Your task to perform on an android device: toggle location history Image 0: 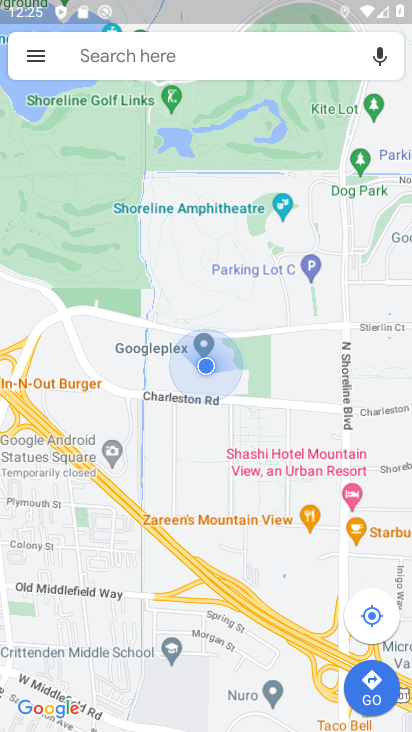
Step 0: press home button
Your task to perform on an android device: toggle location history Image 1: 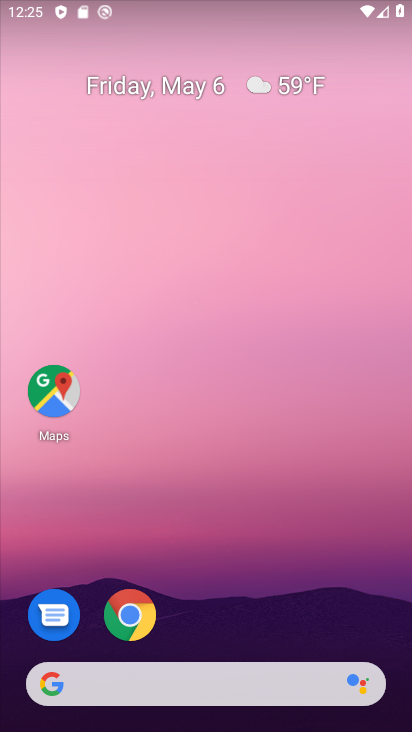
Step 1: drag from (248, 544) to (226, 12)
Your task to perform on an android device: toggle location history Image 2: 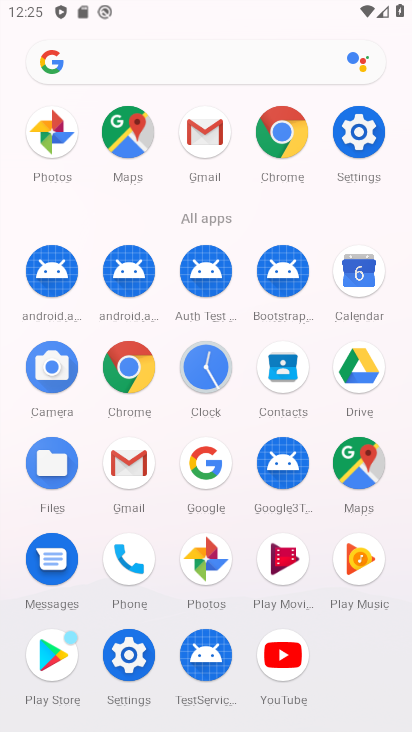
Step 2: click (365, 131)
Your task to perform on an android device: toggle location history Image 3: 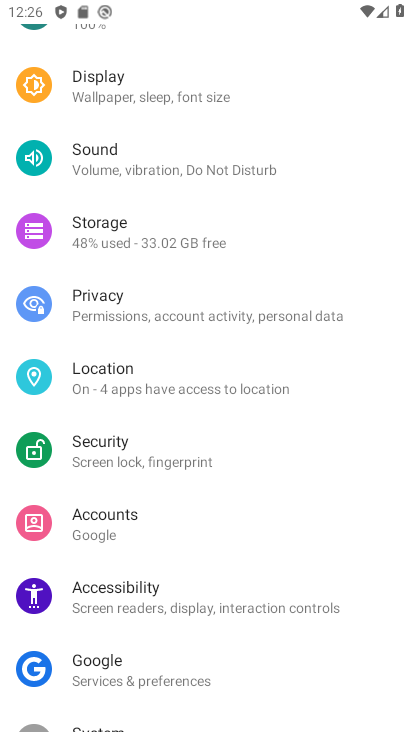
Step 3: click (174, 373)
Your task to perform on an android device: toggle location history Image 4: 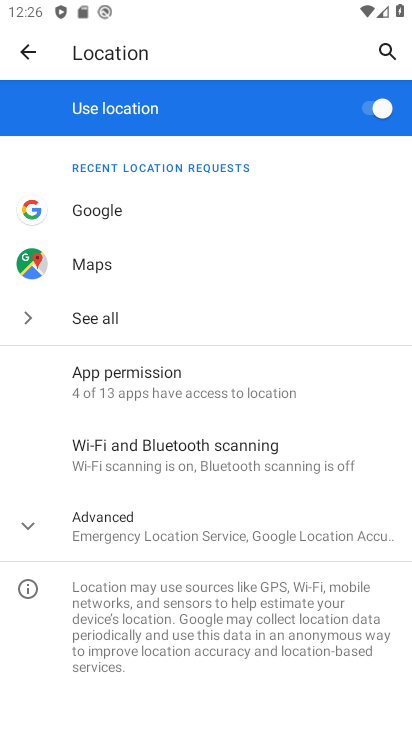
Step 4: click (20, 523)
Your task to perform on an android device: toggle location history Image 5: 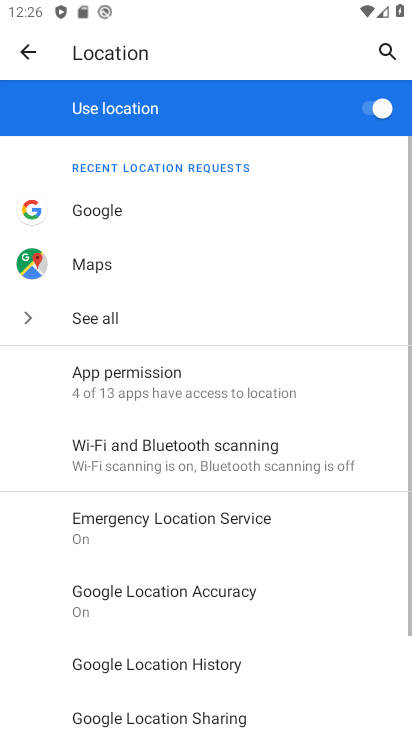
Step 5: drag from (208, 504) to (240, 245)
Your task to perform on an android device: toggle location history Image 6: 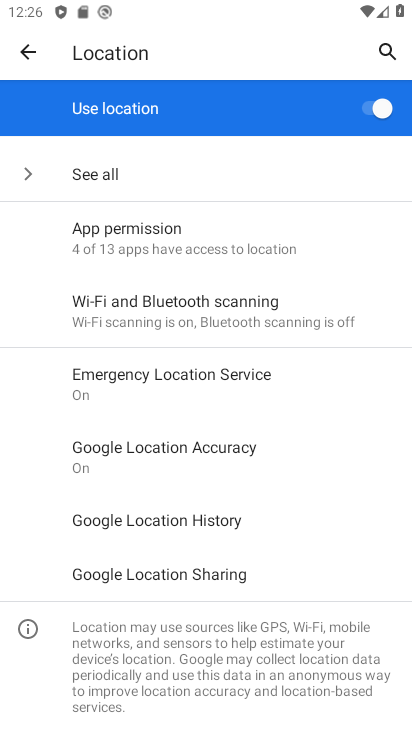
Step 6: click (167, 517)
Your task to perform on an android device: toggle location history Image 7: 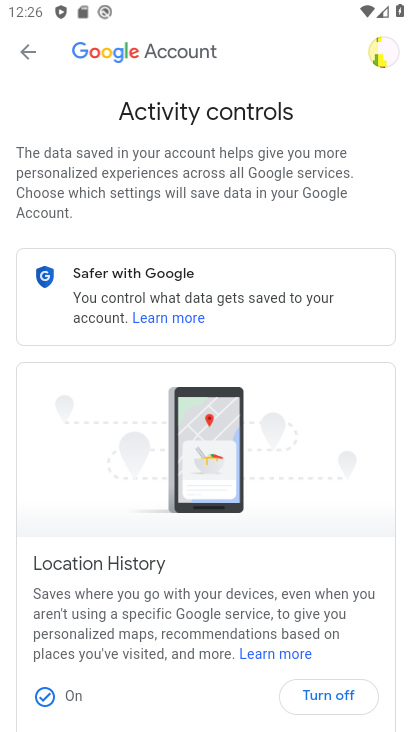
Step 7: click (331, 694)
Your task to perform on an android device: toggle location history Image 8: 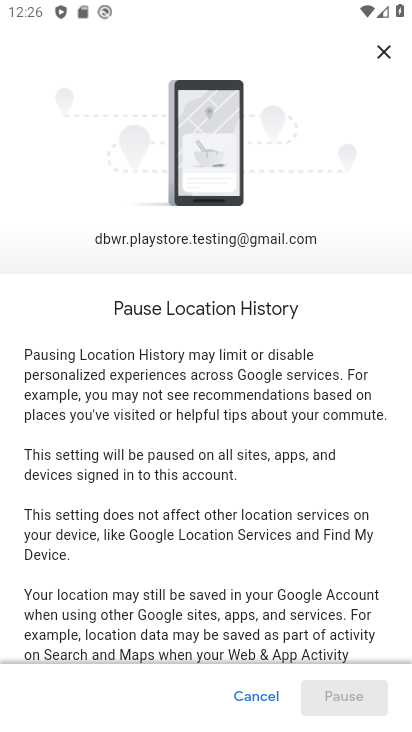
Step 8: drag from (298, 565) to (278, 221)
Your task to perform on an android device: toggle location history Image 9: 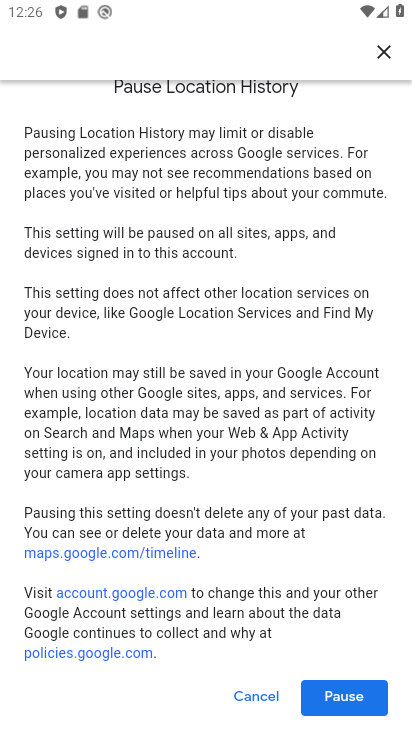
Step 9: click (340, 695)
Your task to perform on an android device: toggle location history Image 10: 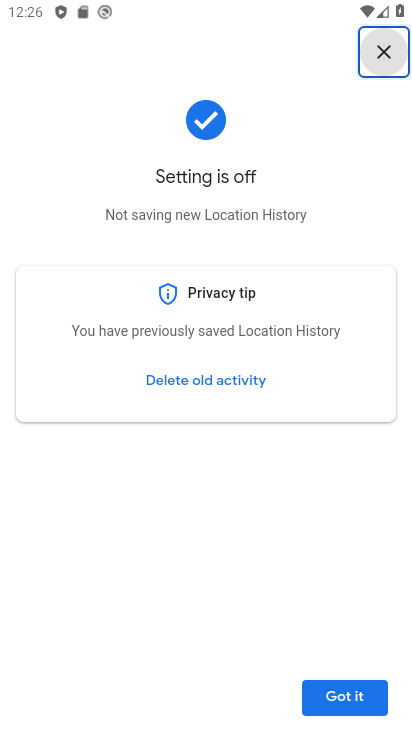
Step 10: click (343, 693)
Your task to perform on an android device: toggle location history Image 11: 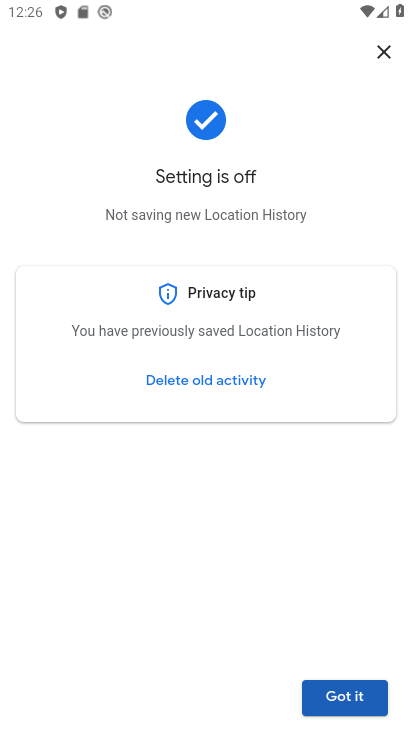
Step 11: click (353, 698)
Your task to perform on an android device: toggle location history Image 12: 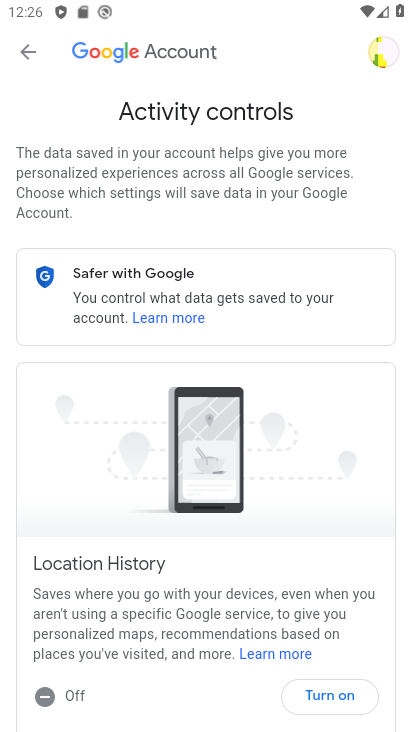
Step 12: task complete